Your task to perform on an android device: find photos in the google photos app Image 0: 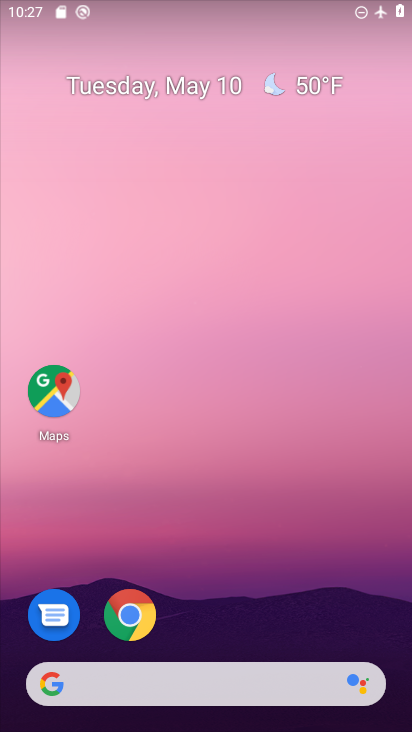
Step 0: drag from (384, 662) to (298, 115)
Your task to perform on an android device: find photos in the google photos app Image 1: 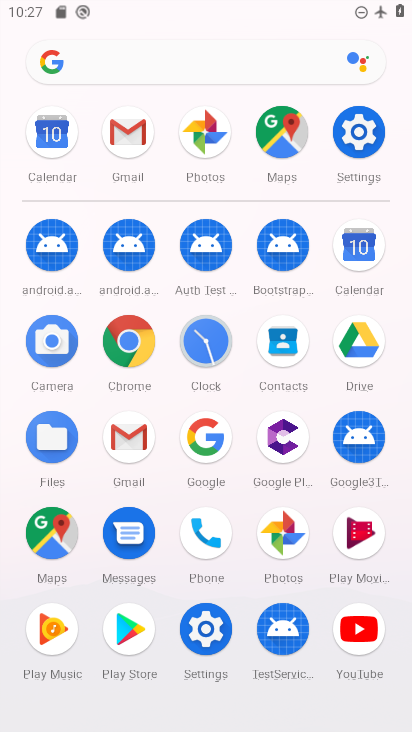
Step 1: click (284, 533)
Your task to perform on an android device: find photos in the google photos app Image 2: 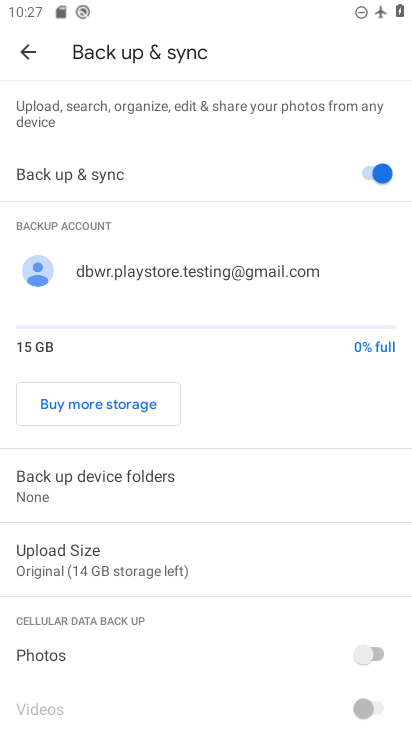
Step 2: press home button
Your task to perform on an android device: find photos in the google photos app Image 3: 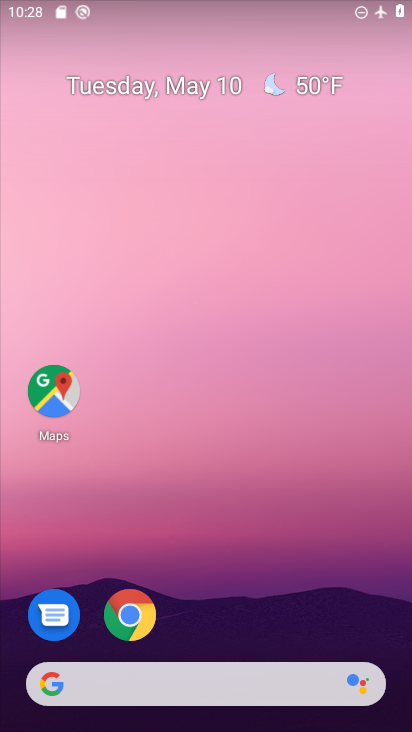
Step 3: drag from (385, 640) to (324, 112)
Your task to perform on an android device: find photos in the google photos app Image 4: 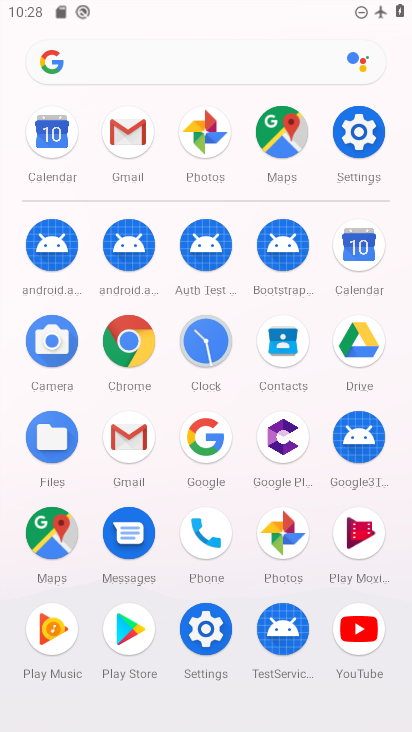
Step 4: click (282, 529)
Your task to perform on an android device: find photos in the google photos app Image 5: 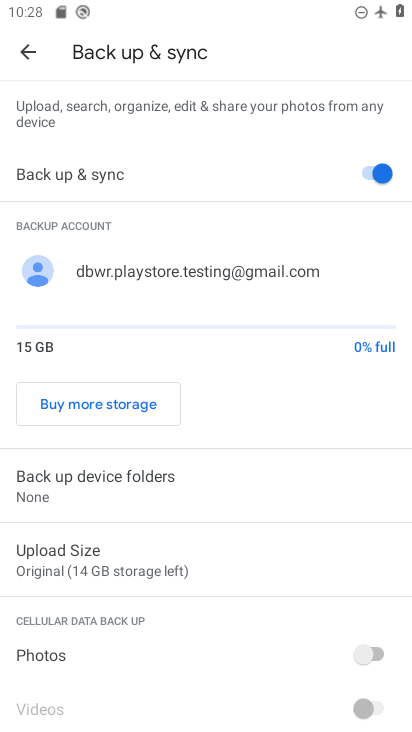
Step 5: task complete